Your task to perform on an android device: Open my contact list Image 0: 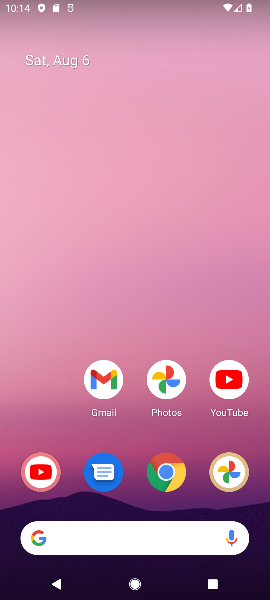
Step 0: drag from (208, 528) to (102, 146)
Your task to perform on an android device: Open my contact list Image 1: 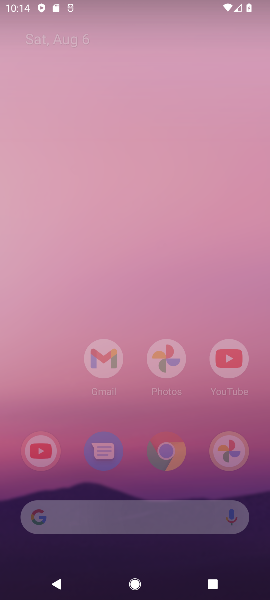
Step 1: drag from (122, 458) to (87, 183)
Your task to perform on an android device: Open my contact list Image 2: 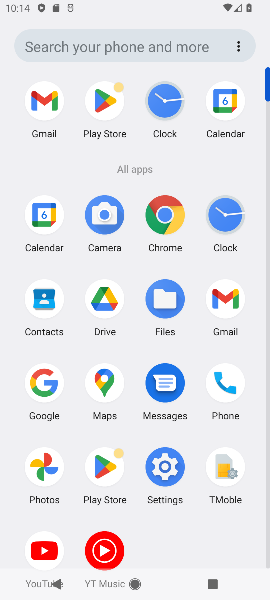
Step 2: click (44, 294)
Your task to perform on an android device: Open my contact list Image 3: 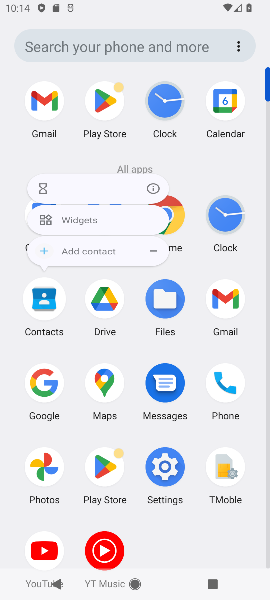
Step 3: click (36, 285)
Your task to perform on an android device: Open my contact list Image 4: 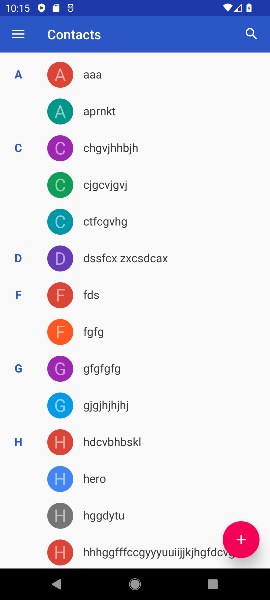
Step 4: task complete